Your task to perform on an android device: check google app version Image 0: 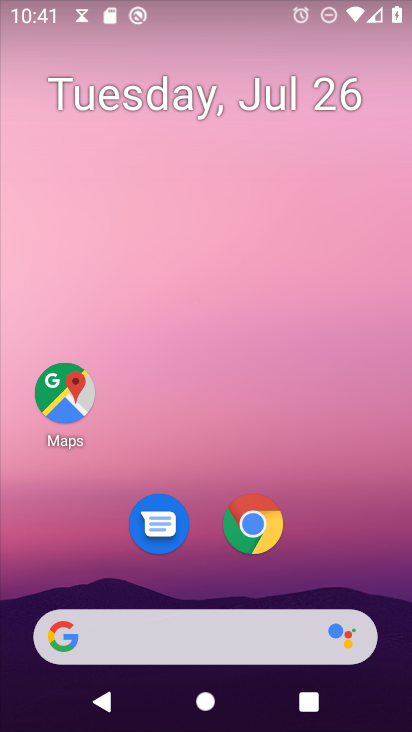
Step 0: press home button
Your task to perform on an android device: check google app version Image 1: 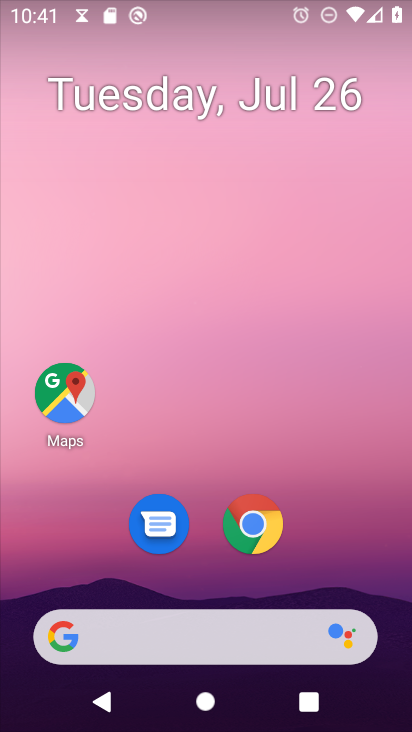
Step 1: drag from (231, 627) to (362, 119)
Your task to perform on an android device: check google app version Image 2: 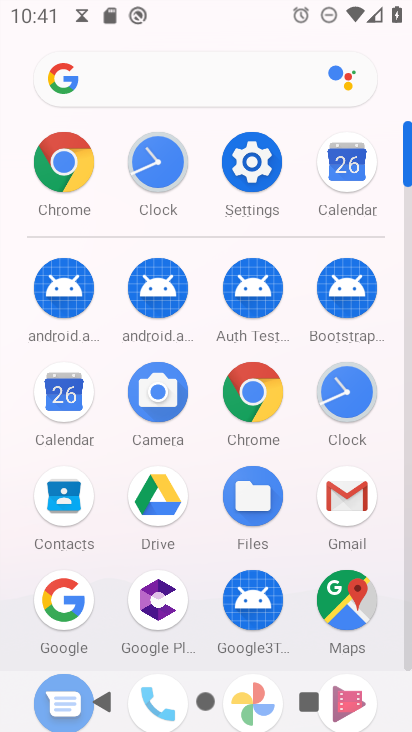
Step 2: click (75, 592)
Your task to perform on an android device: check google app version Image 3: 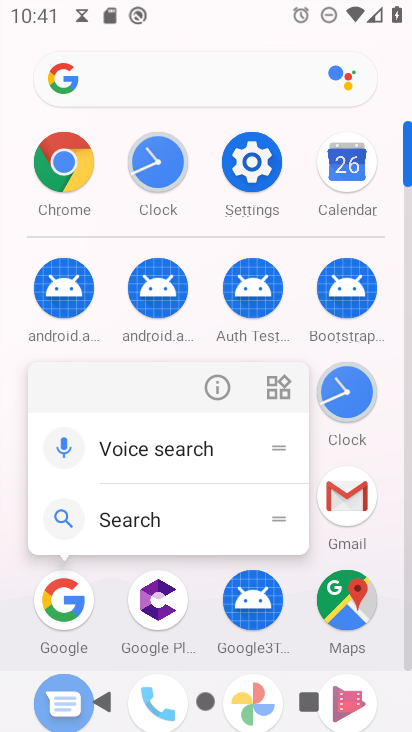
Step 3: click (225, 386)
Your task to perform on an android device: check google app version Image 4: 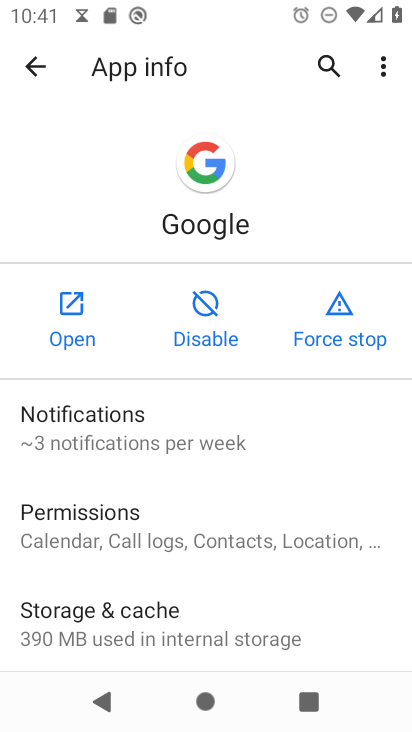
Step 4: drag from (194, 610) to (350, 177)
Your task to perform on an android device: check google app version Image 5: 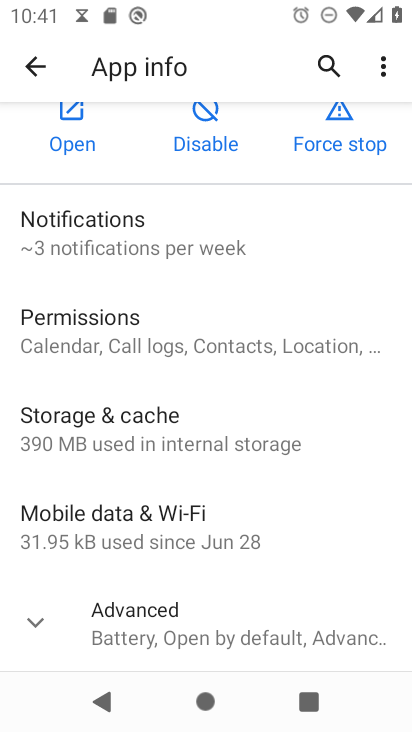
Step 5: drag from (210, 524) to (349, 45)
Your task to perform on an android device: check google app version Image 6: 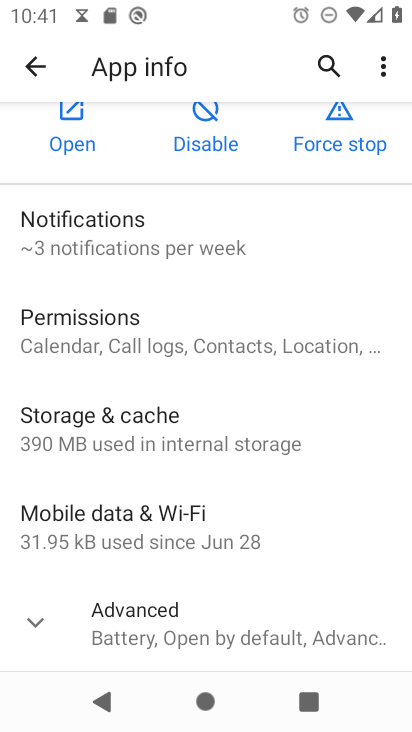
Step 6: click (185, 609)
Your task to perform on an android device: check google app version Image 7: 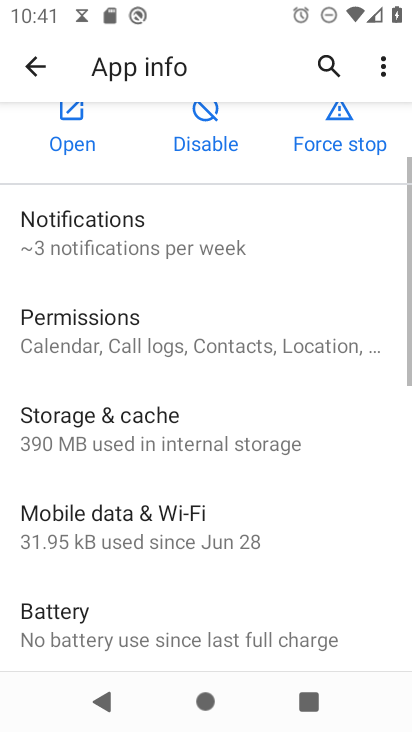
Step 7: task complete